Your task to perform on an android device: move a message to another label in the gmail app Image 0: 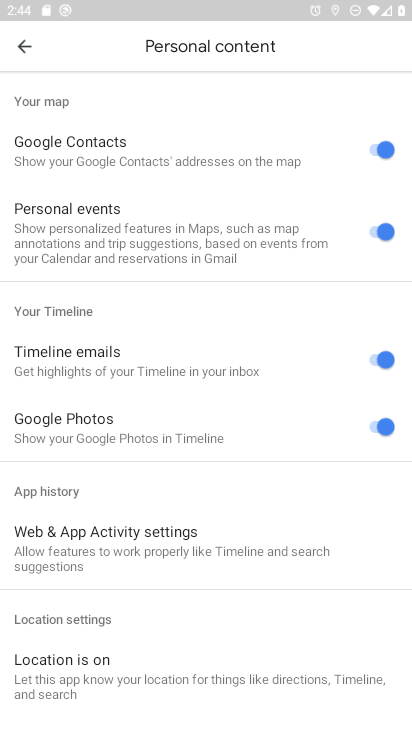
Step 0: press home button
Your task to perform on an android device: move a message to another label in the gmail app Image 1: 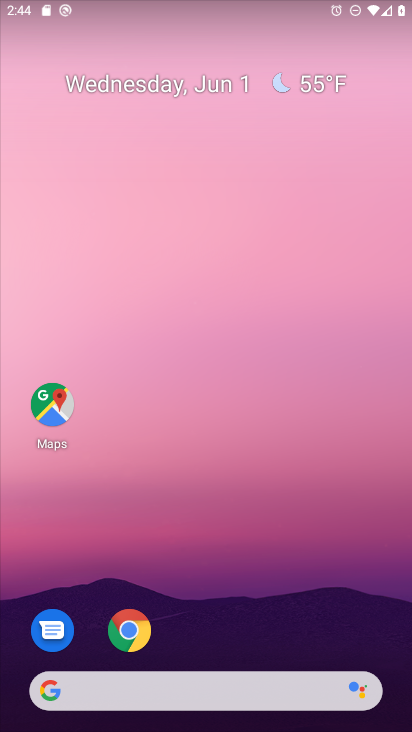
Step 1: press home button
Your task to perform on an android device: move a message to another label in the gmail app Image 2: 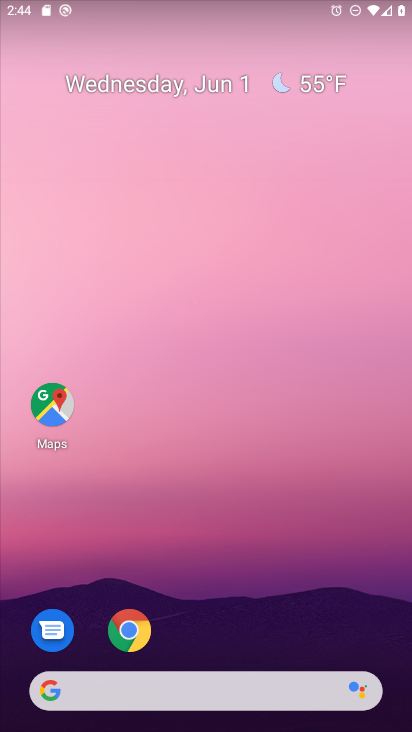
Step 2: drag from (300, 679) to (373, 109)
Your task to perform on an android device: move a message to another label in the gmail app Image 3: 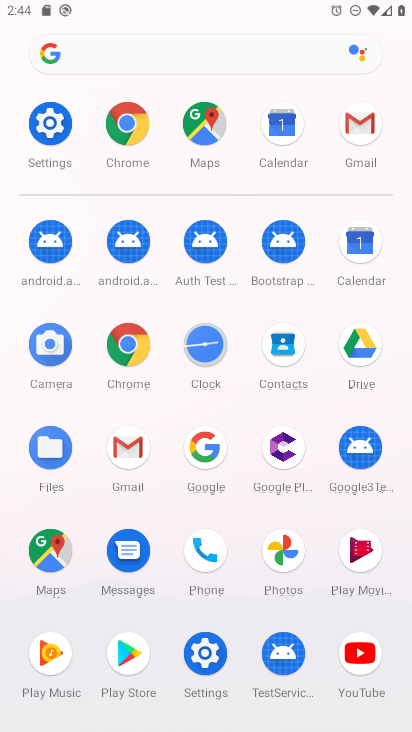
Step 3: click (136, 444)
Your task to perform on an android device: move a message to another label in the gmail app Image 4: 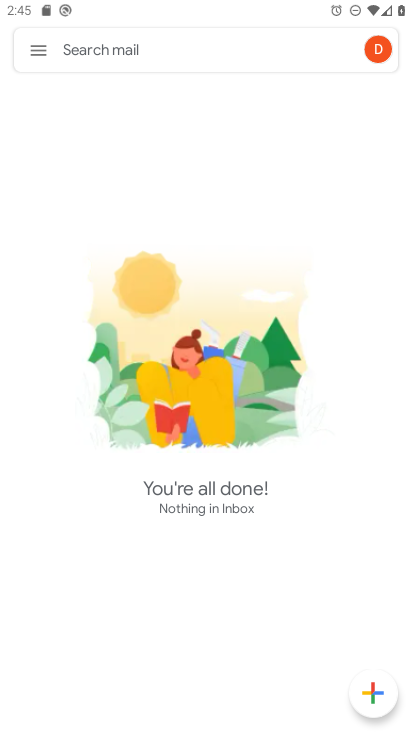
Step 4: click (34, 46)
Your task to perform on an android device: move a message to another label in the gmail app Image 5: 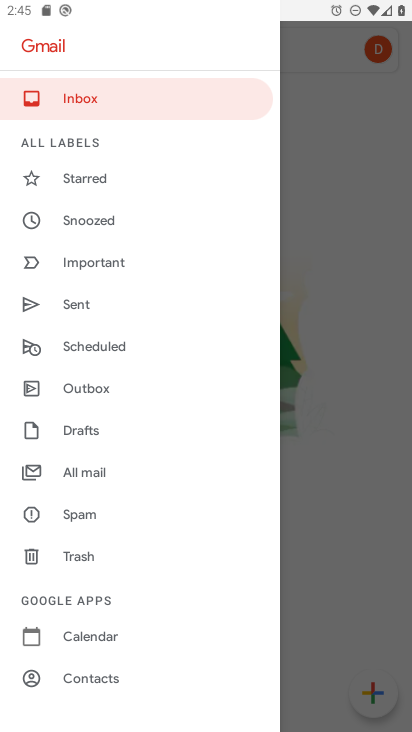
Step 5: click (118, 253)
Your task to perform on an android device: move a message to another label in the gmail app Image 6: 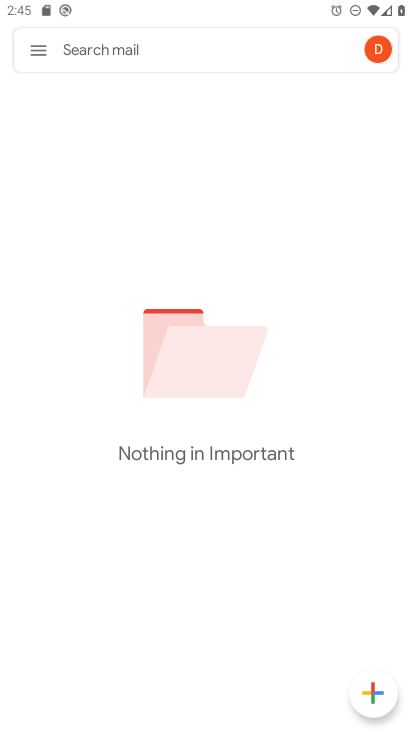
Step 6: task complete